Your task to perform on an android device: Go to Amazon Image 0: 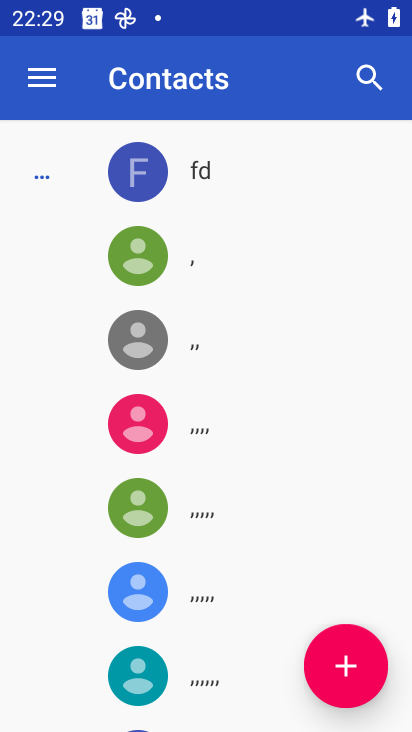
Step 0: press home button
Your task to perform on an android device: Go to Amazon Image 1: 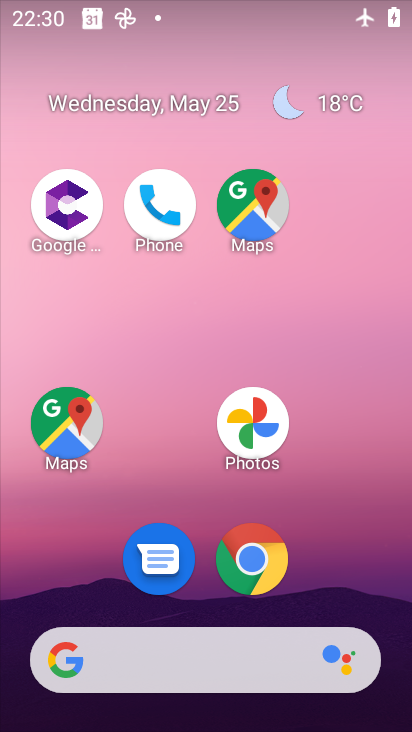
Step 1: click (248, 563)
Your task to perform on an android device: Go to Amazon Image 2: 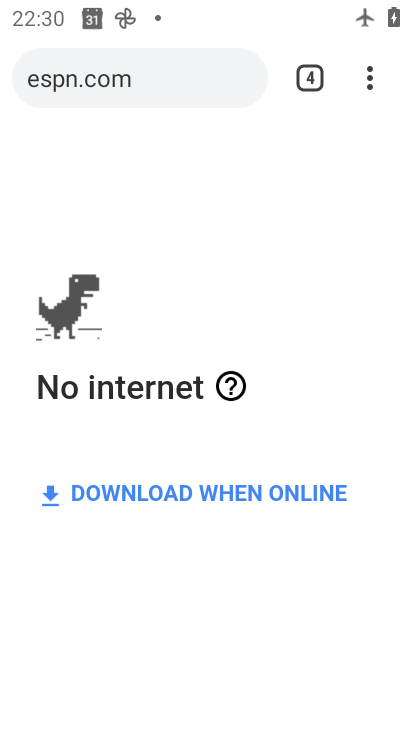
Step 2: drag from (333, 0) to (355, 431)
Your task to perform on an android device: Go to Amazon Image 3: 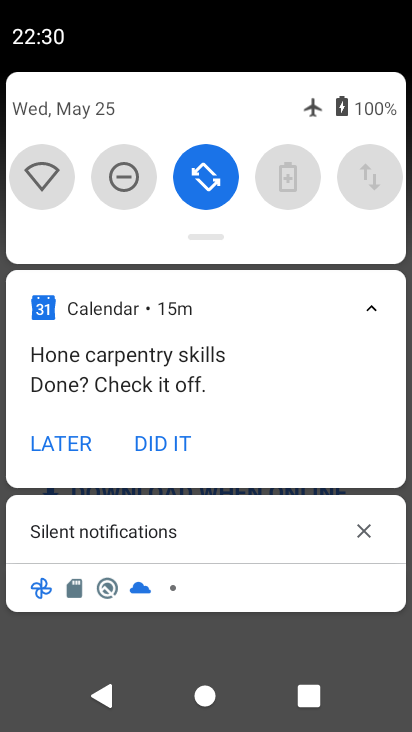
Step 3: drag from (203, 237) to (224, 525)
Your task to perform on an android device: Go to Amazon Image 4: 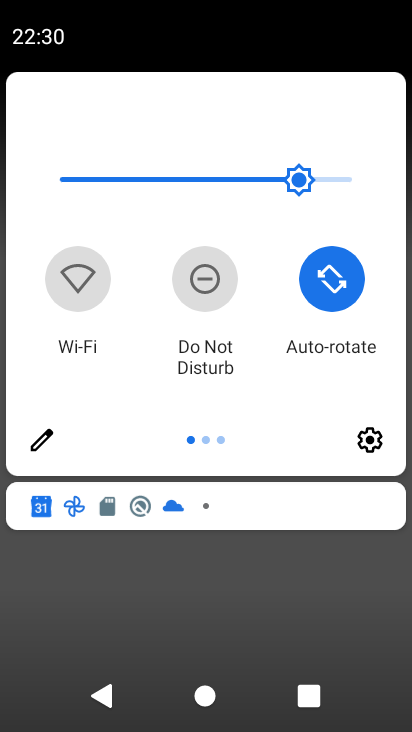
Step 4: drag from (360, 303) to (20, 327)
Your task to perform on an android device: Go to Amazon Image 5: 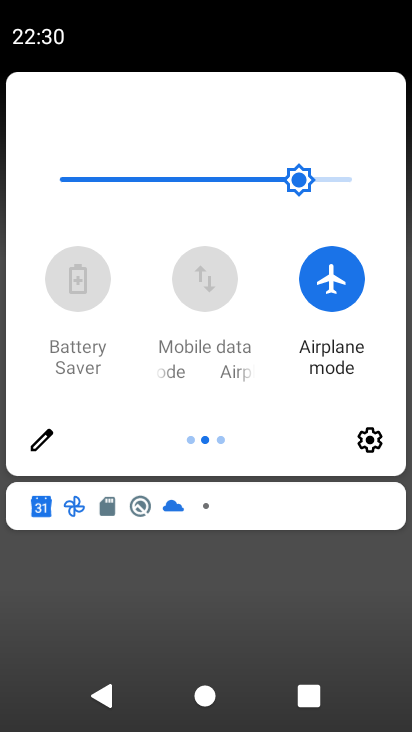
Step 5: click (337, 281)
Your task to perform on an android device: Go to Amazon Image 6: 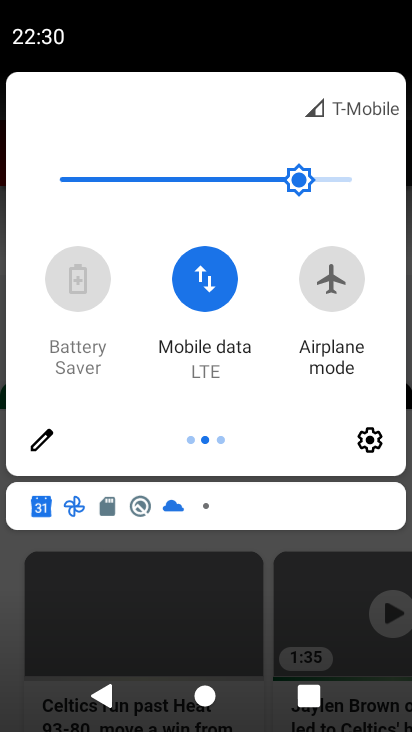
Step 6: drag from (282, 583) to (280, 82)
Your task to perform on an android device: Go to Amazon Image 7: 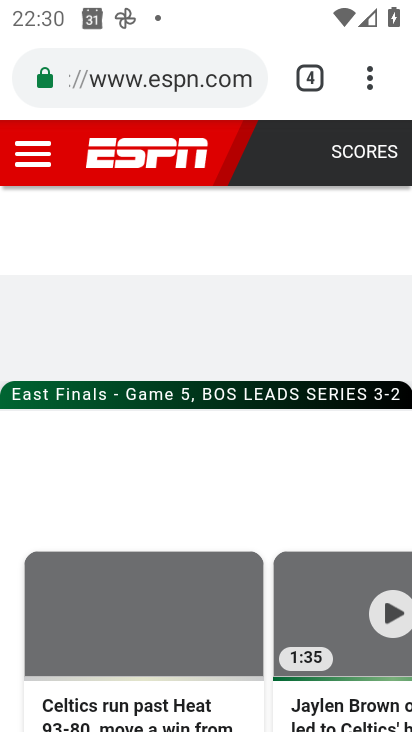
Step 7: click (309, 82)
Your task to perform on an android device: Go to Amazon Image 8: 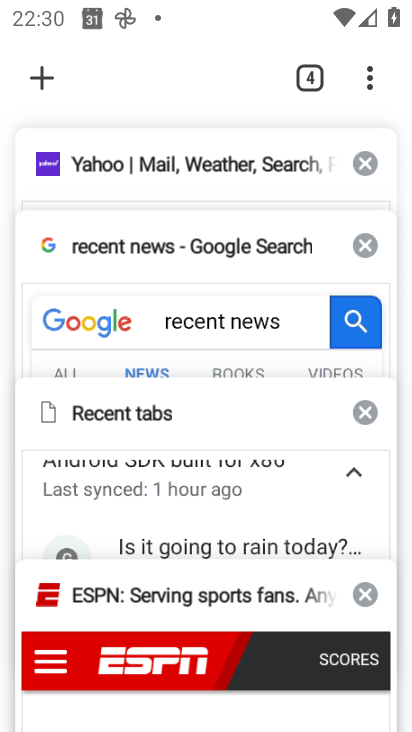
Step 8: click (36, 80)
Your task to perform on an android device: Go to Amazon Image 9: 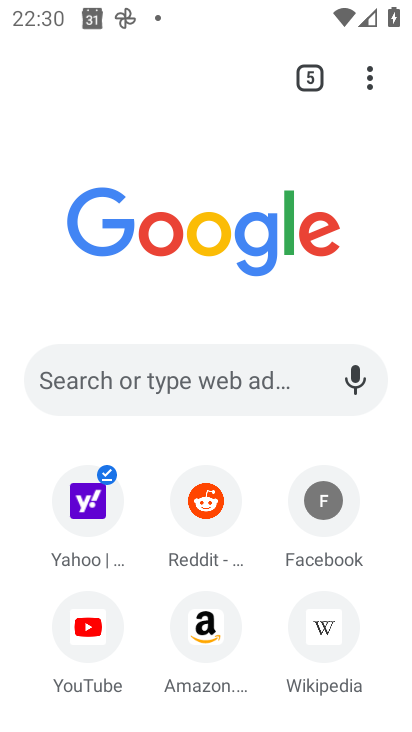
Step 9: click (205, 629)
Your task to perform on an android device: Go to Amazon Image 10: 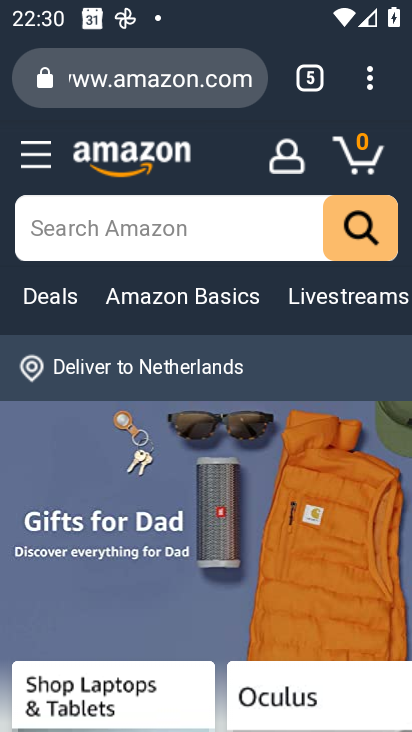
Step 10: task complete